Your task to perform on an android device: Search for pizza restaurants on Maps Image 0: 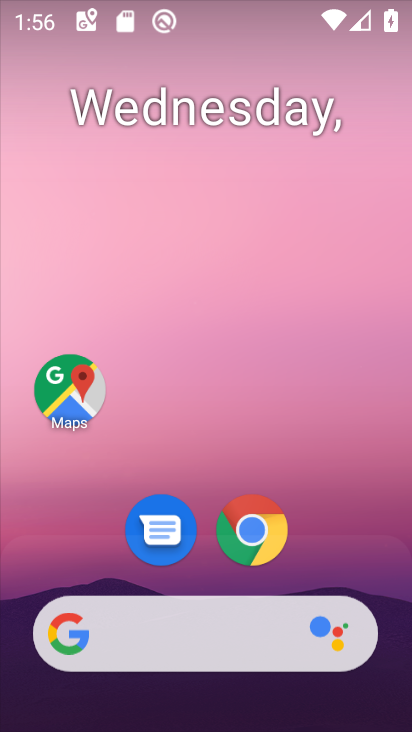
Step 0: click (77, 392)
Your task to perform on an android device: Search for pizza restaurants on Maps Image 1: 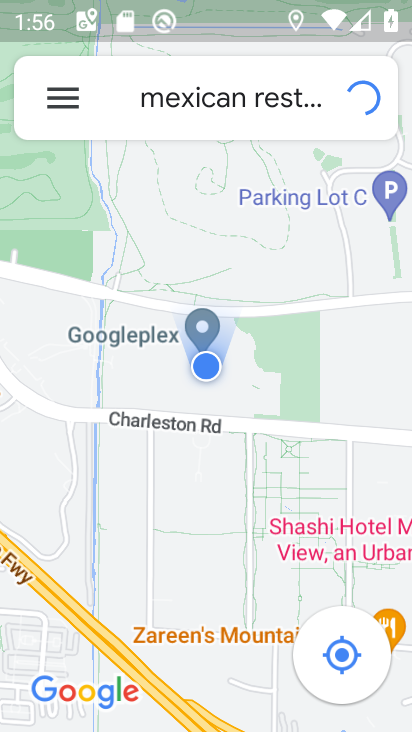
Step 1: click (317, 99)
Your task to perform on an android device: Search for pizza restaurants on Maps Image 2: 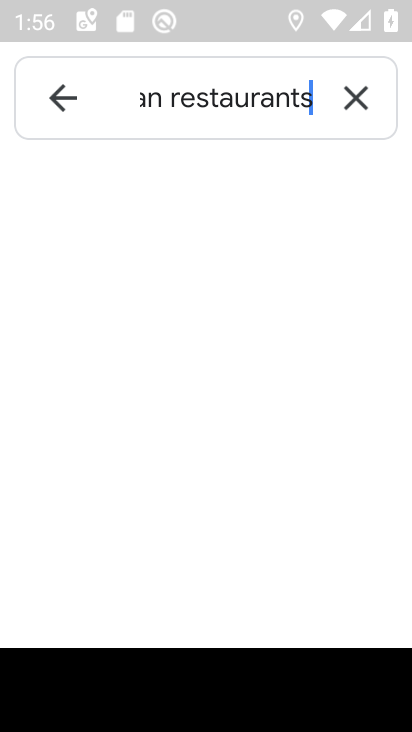
Step 2: click (362, 96)
Your task to perform on an android device: Search for pizza restaurants on Maps Image 3: 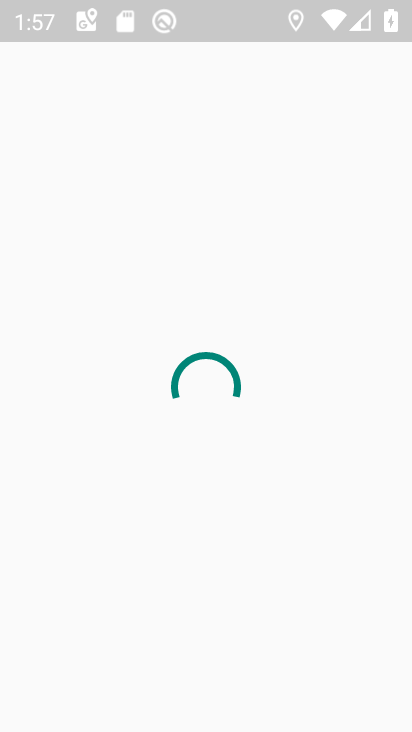
Step 3: click (222, 96)
Your task to perform on an android device: Search for pizza restaurants on Maps Image 4: 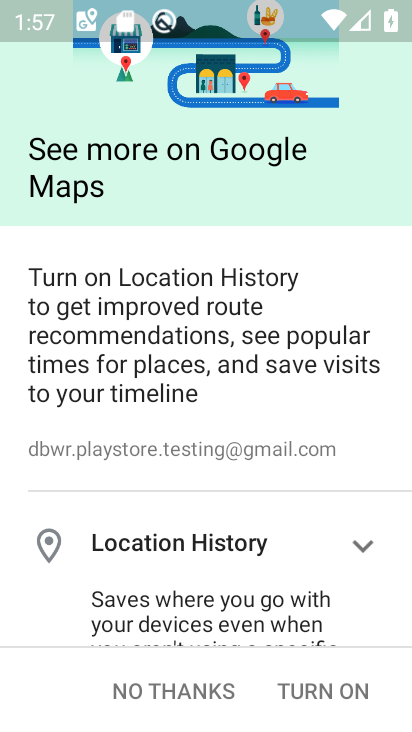
Step 4: click (198, 698)
Your task to perform on an android device: Search for pizza restaurants on Maps Image 5: 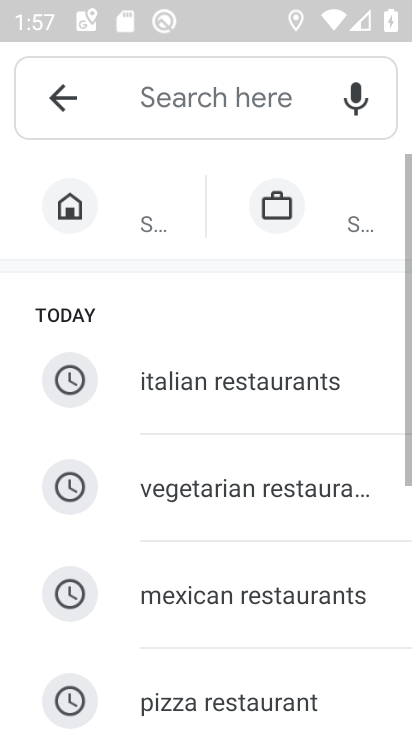
Step 5: click (232, 93)
Your task to perform on an android device: Search for pizza restaurants on Maps Image 6: 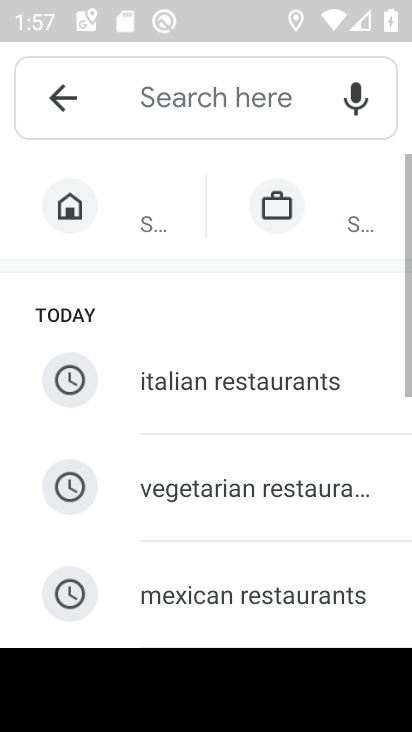
Step 6: drag from (249, 678) to (273, 339)
Your task to perform on an android device: Search for pizza restaurants on Maps Image 7: 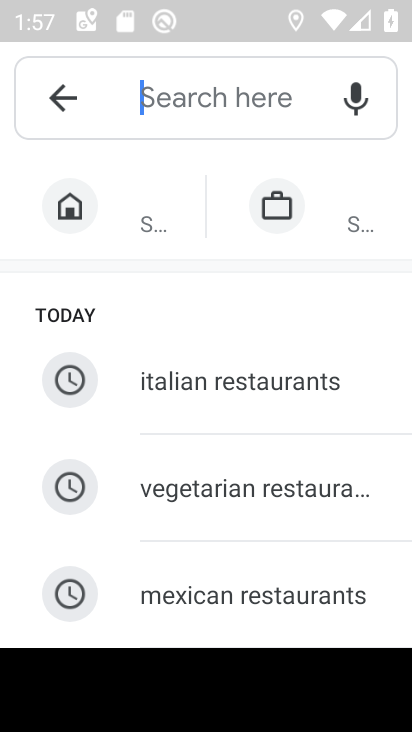
Step 7: drag from (246, 549) to (266, 295)
Your task to perform on an android device: Search for pizza restaurants on Maps Image 8: 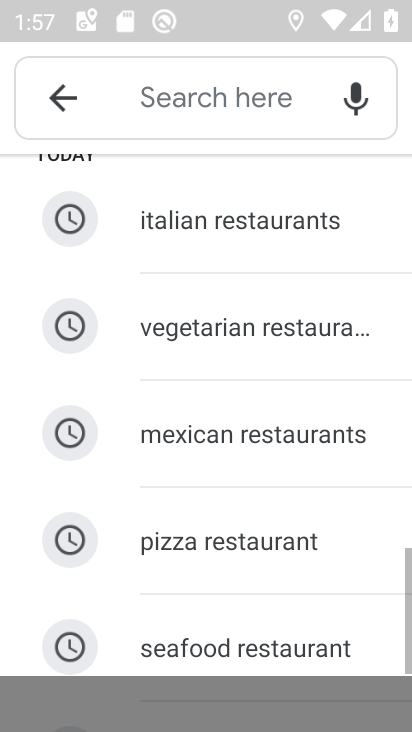
Step 8: drag from (237, 504) to (251, 272)
Your task to perform on an android device: Search for pizza restaurants on Maps Image 9: 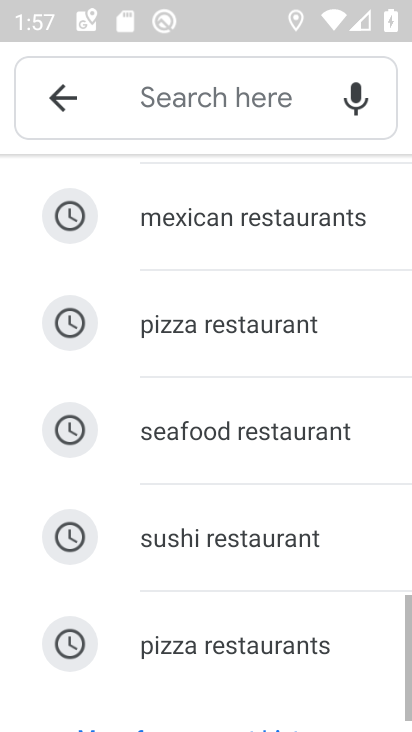
Step 9: click (257, 394)
Your task to perform on an android device: Search for pizza restaurants on Maps Image 10: 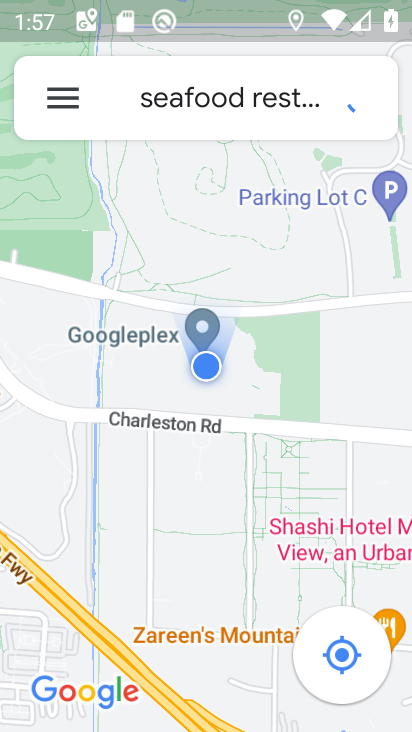
Step 10: click (331, 107)
Your task to perform on an android device: Search for pizza restaurants on Maps Image 11: 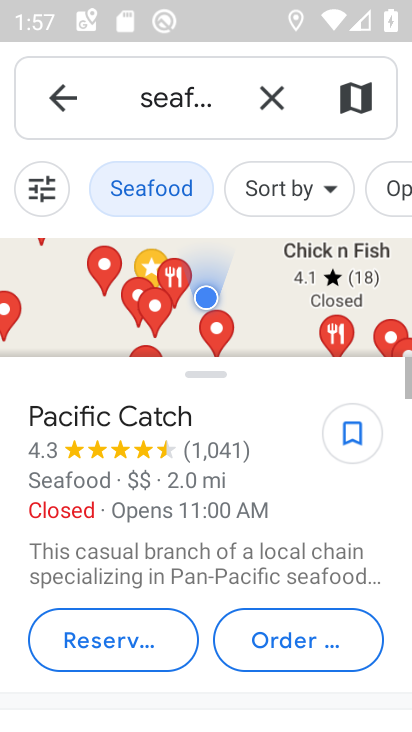
Step 11: click (275, 102)
Your task to perform on an android device: Search for pizza restaurants on Maps Image 12: 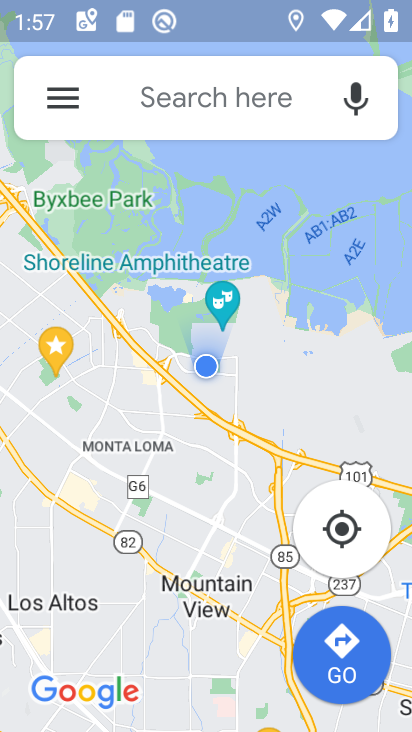
Step 12: click (226, 87)
Your task to perform on an android device: Search for pizza restaurants on Maps Image 13: 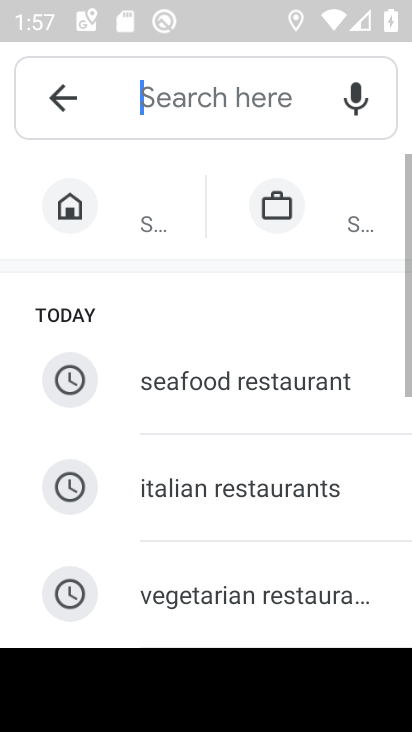
Step 13: type " pizza restaurant"
Your task to perform on an android device: Search for pizza restaurants on Maps Image 14: 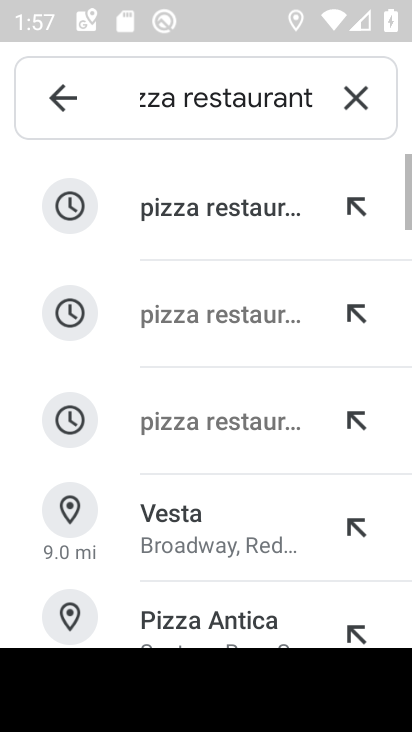
Step 14: click (220, 202)
Your task to perform on an android device: Search for pizza restaurants on Maps Image 15: 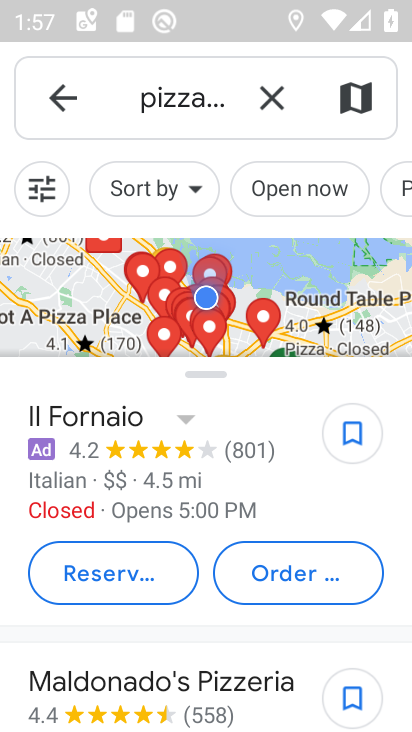
Step 15: task complete